Your task to perform on an android device: turn on airplane mode Image 0: 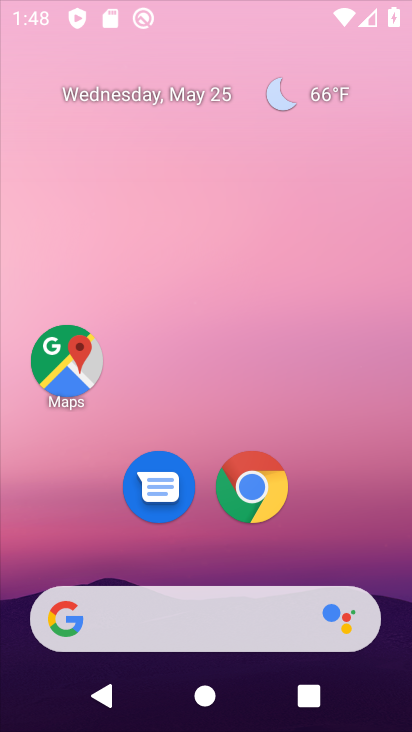
Step 0: click (166, 19)
Your task to perform on an android device: turn on airplane mode Image 1: 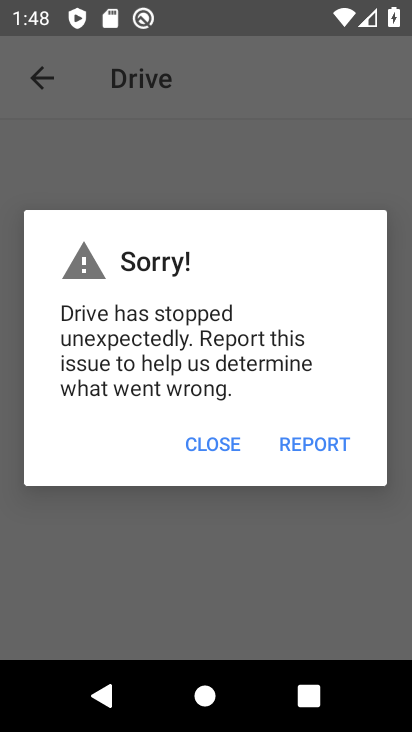
Step 1: press home button
Your task to perform on an android device: turn on airplane mode Image 2: 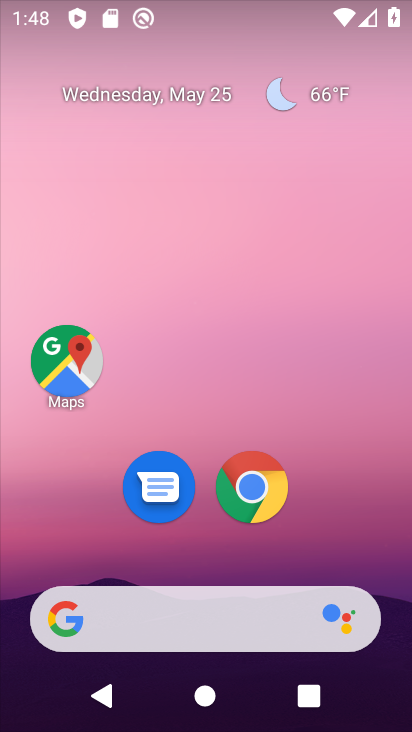
Step 2: drag from (213, 538) to (214, 100)
Your task to perform on an android device: turn on airplane mode Image 3: 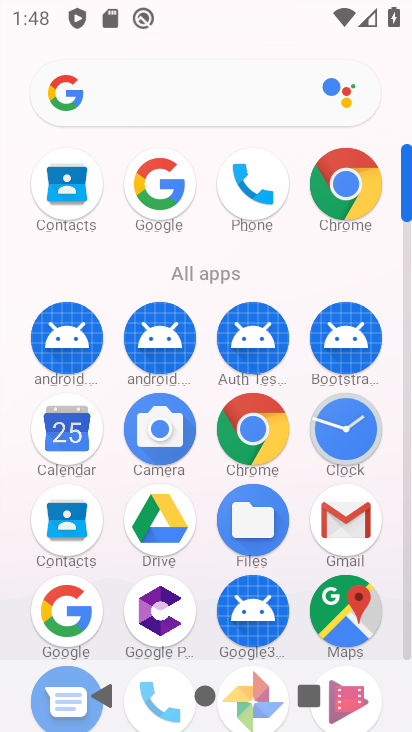
Step 3: drag from (287, 583) to (253, 207)
Your task to perform on an android device: turn on airplane mode Image 4: 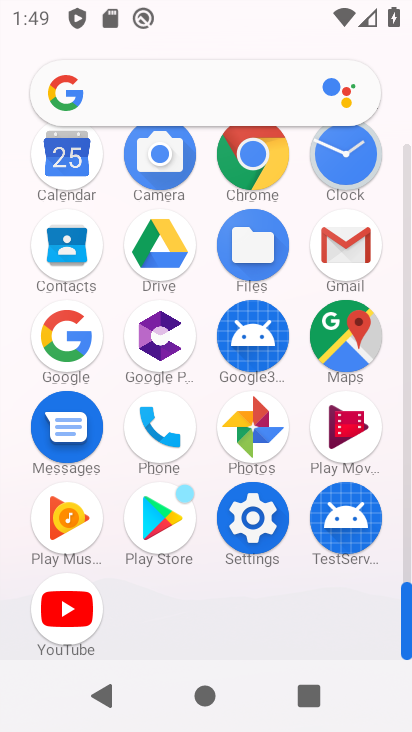
Step 4: click (246, 528)
Your task to perform on an android device: turn on airplane mode Image 5: 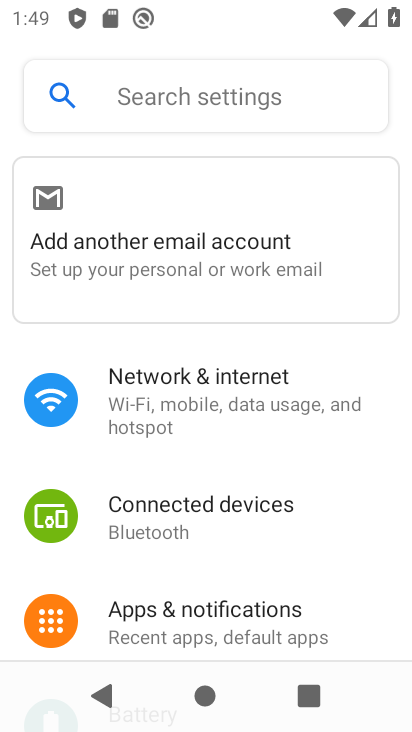
Step 5: drag from (193, 570) to (194, 184)
Your task to perform on an android device: turn on airplane mode Image 6: 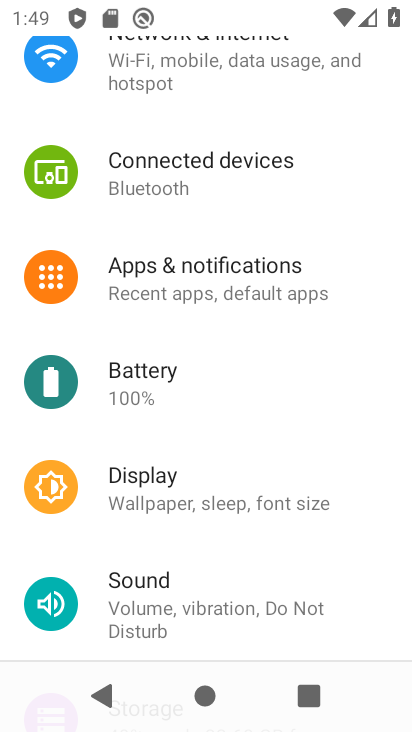
Step 6: click (149, 86)
Your task to perform on an android device: turn on airplane mode Image 7: 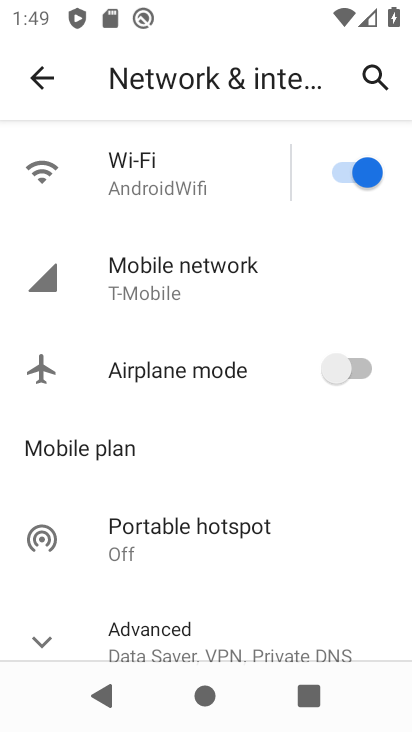
Step 7: click (358, 361)
Your task to perform on an android device: turn on airplane mode Image 8: 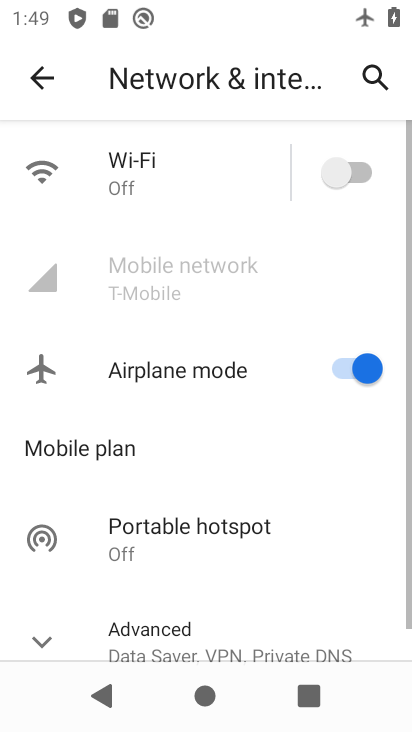
Step 8: task complete